Your task to perform on an android device: see tabs open on other devices in the chrome app Image 0: 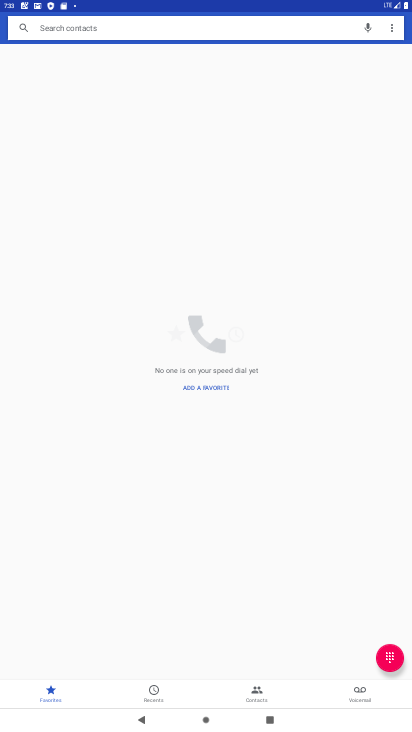
Step 0: press home button
Your task to perform on an android device: see tabs open on other devices in the chrome app Image 1: 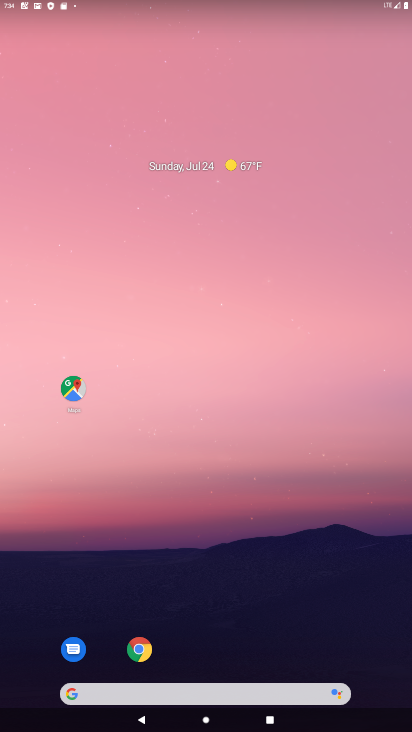
Step 1: drag from (272, 645) to (31, 173)
Your task to perform on an android device: see tabs open on other devices in the chrome app Image 2: 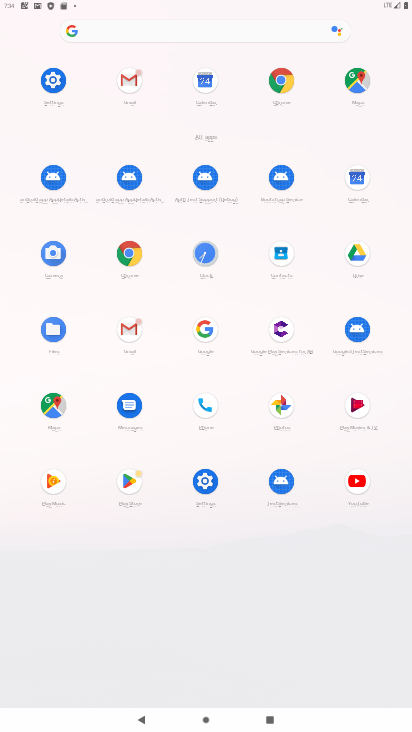
Step 2: click (135, 256)
Your task to perform on an android device: see tabs open on other devices in the chrome app Image 3: 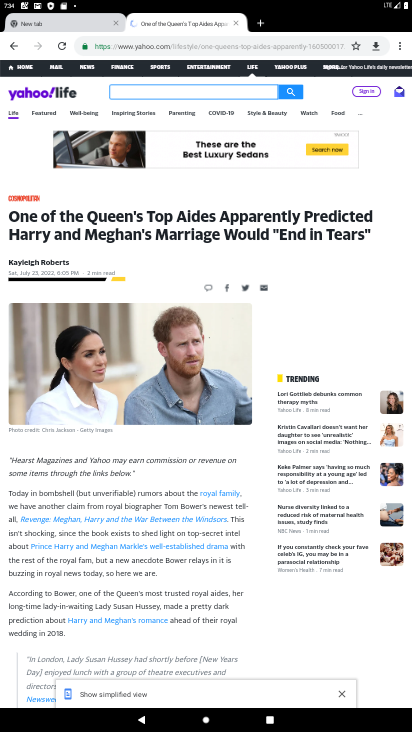
Step 3: click (63, 14)
Your task to perform on an android device: see tabs open on other devices in the chrome app Image 4: 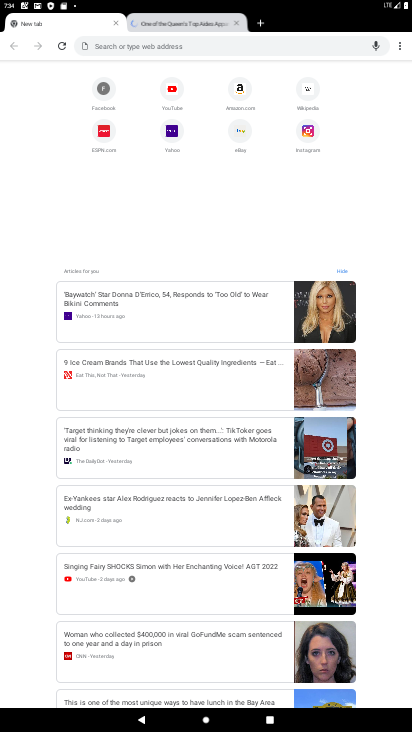
Step 4: task complete